Your task to perform on an android device: Do I have any events today? Image 0: 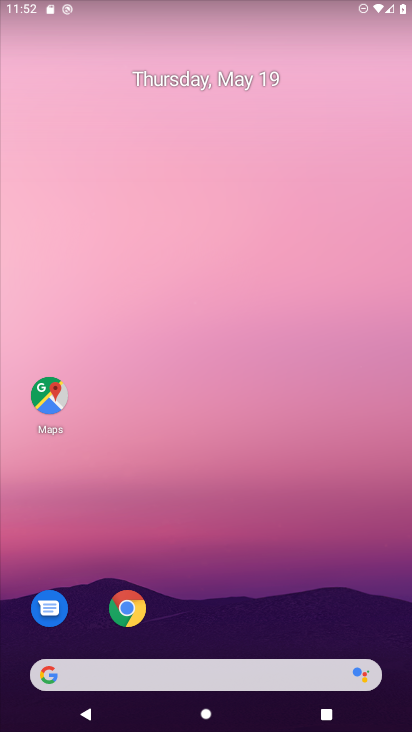
Step 0: press home button
Your task to perform on an android device: Do I have any events today? Image 1: 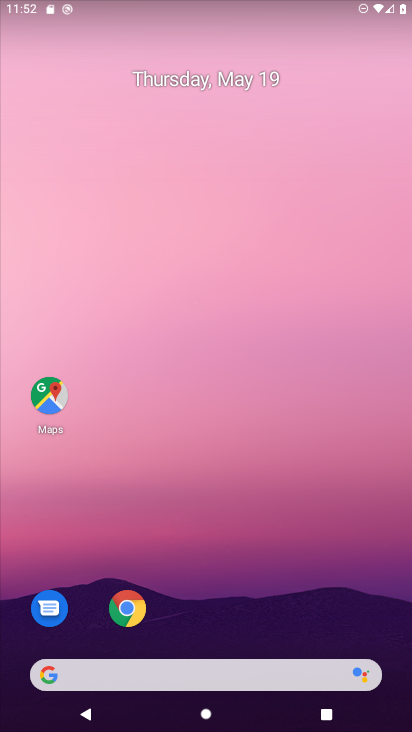
Step 1: drag from (263, 647) to (262, 79)
Your task to perform on an android device: Do I have any events today? Image 2: 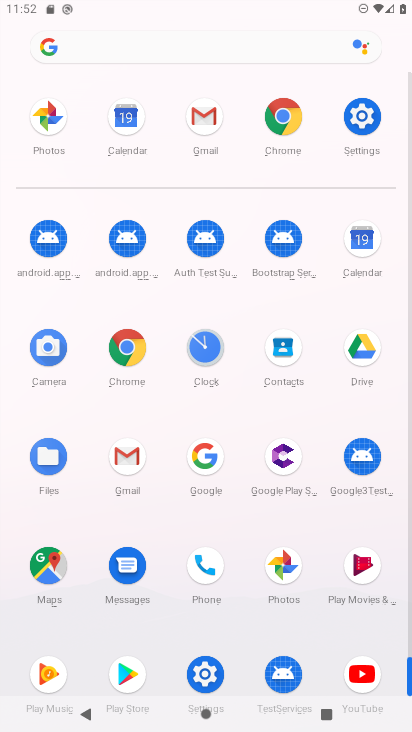
Step 2: click (366, 222)
Your task to perform on an android device: Do I have any events today? Image 3: 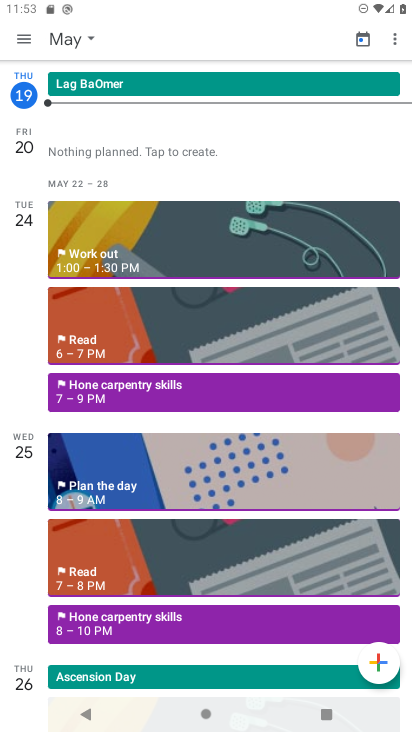
Step 3: task complete